Your task to perform on an android device: Open display settings Image 0: 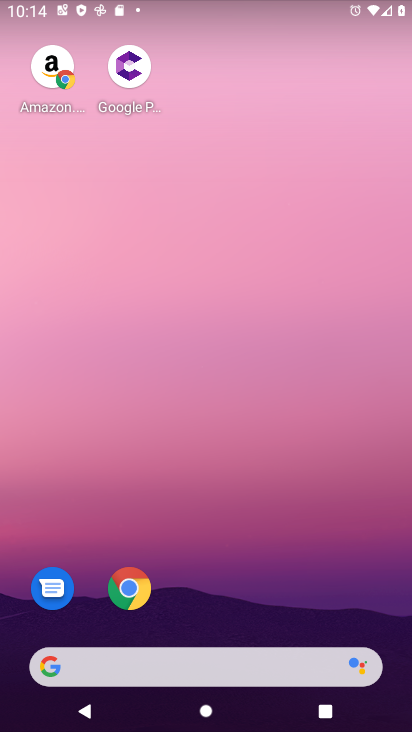
Step 0: drag from (325, 568) to (149, 0)
Your task to perform on an android device: Open display settings Image 1: 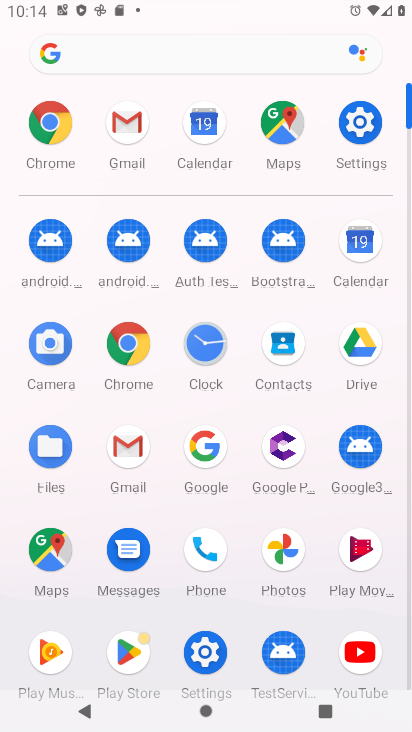
Step 1: click (362, 123)
Your task to perform on an android device: Open display settings Image 2: 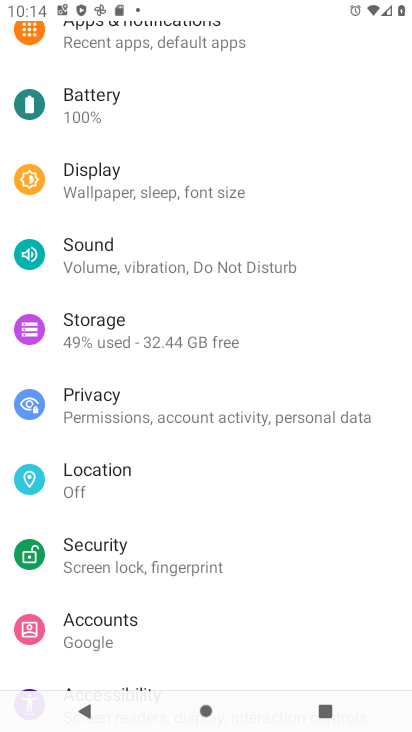
Step 2: click (104, 190)
Your task to perform on an android device: Open display settings Image 3: 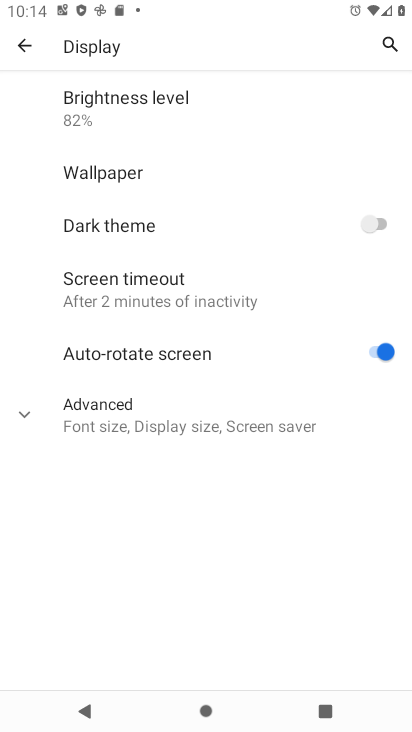
Step 3: task complete